Your task to perform on an android device: Go to Reddit.com Image 0: 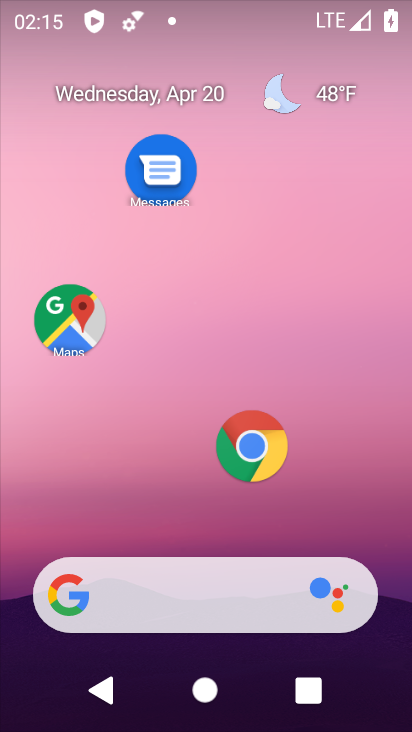
Step 0: drag from (202, 526) to (260, 24)
Your task to perform on an android device: Go to Reddit.com Image 1: 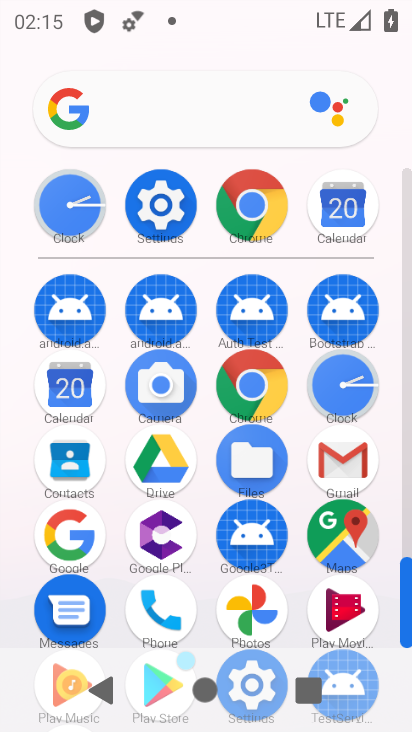
Step 1: click (246, 201)
Your task to perform on an android device: Go to Reddit.com Image 2: 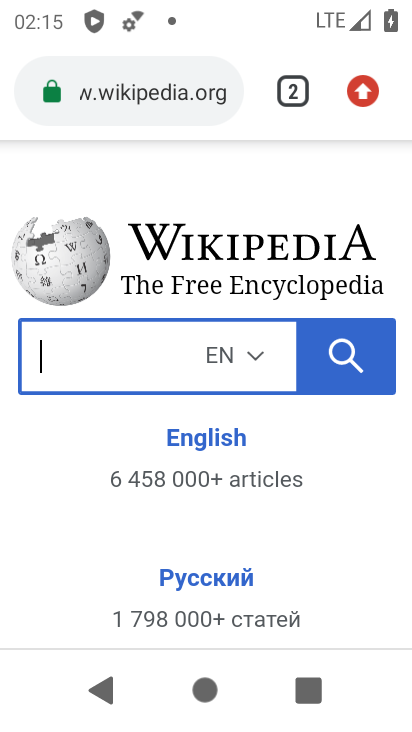
Step 2: click (289, 86)
Your task to perform on an android device: Go to Reddit.com Image 3: 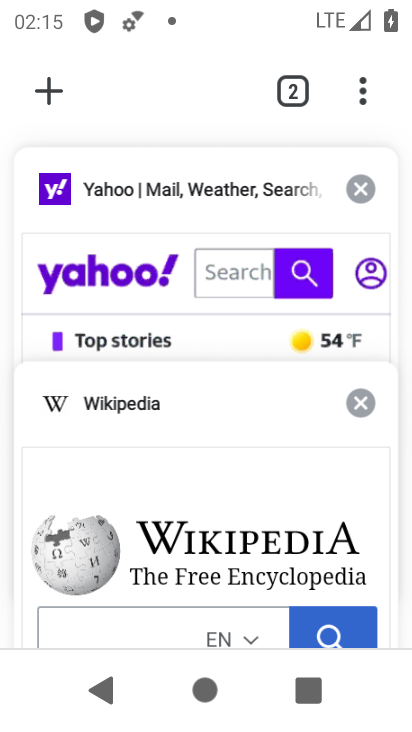
Step 3: click (354, 187)
Your task to perform on an android device: Go to Reddit.com Image 4: 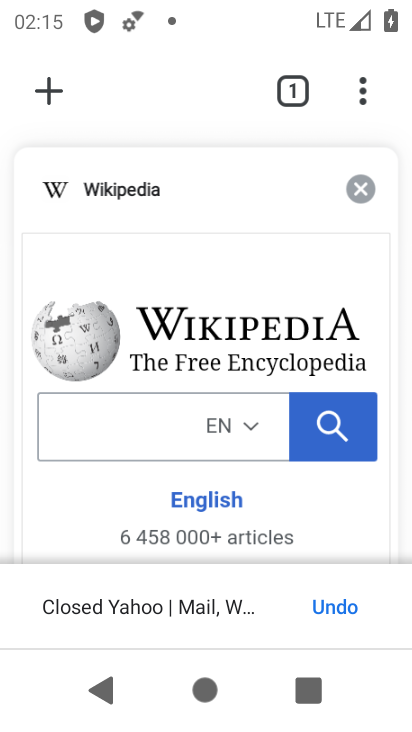
Step 4: click (356, 185)
Your task to perform on an android device: Go to Reddit.com Image 5: 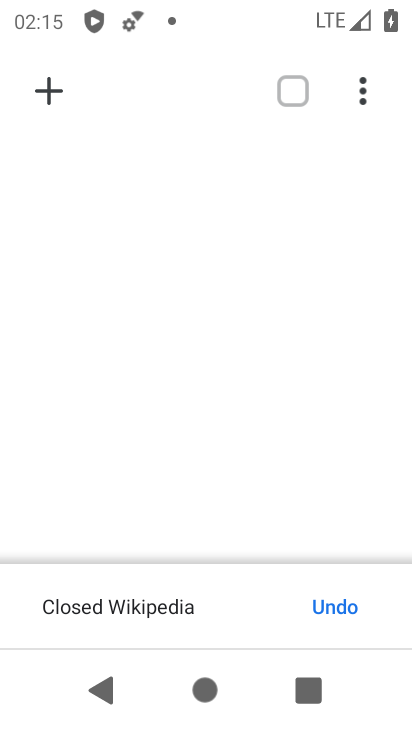
Step 5: click (58, 94)
Your task to perform on an android device: Go to Reddit.com Image 6: 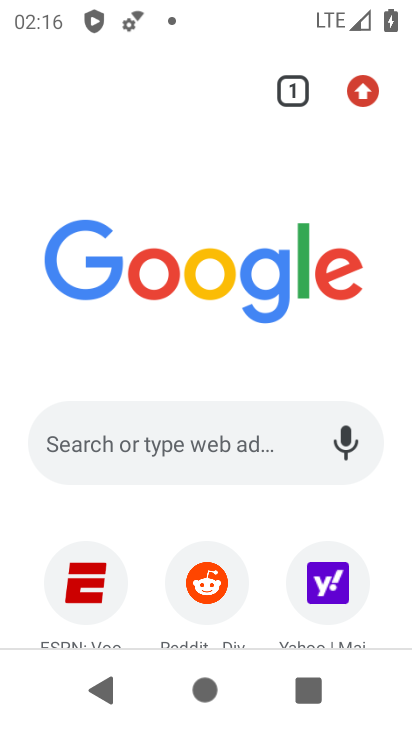
Step 6: click (205, 575)
Your task to perform on an android device: Go to Reddit.com Image 7: 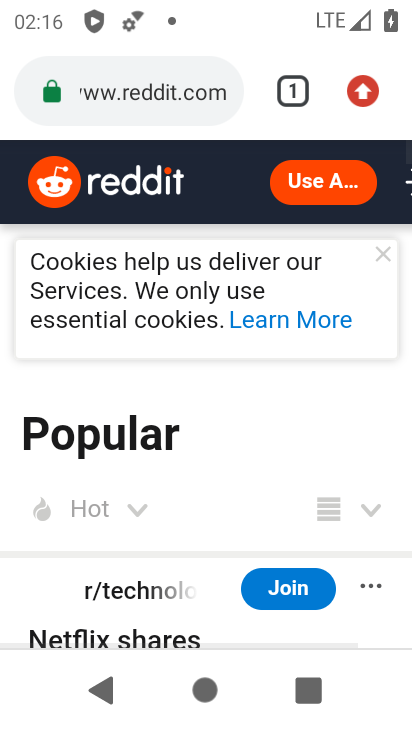
Step 7: drag from (302, 543) to (313, 349)
Your task to perform on an android device: Go to Reddit.com Image 8: 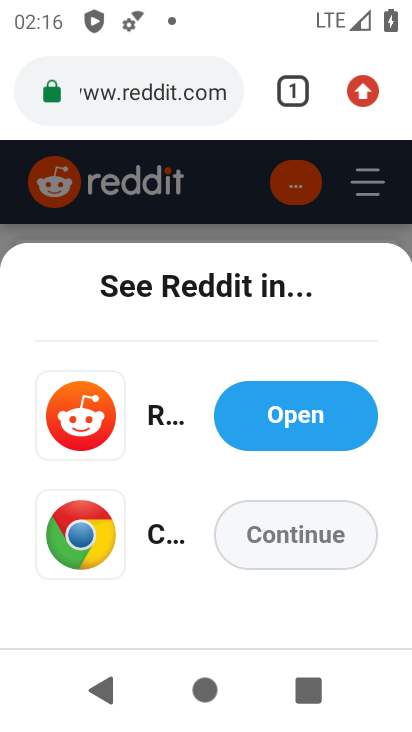
Step 8: click (284, 531)
Your task to perform on an android device: Go to Reddit.com Image 9: 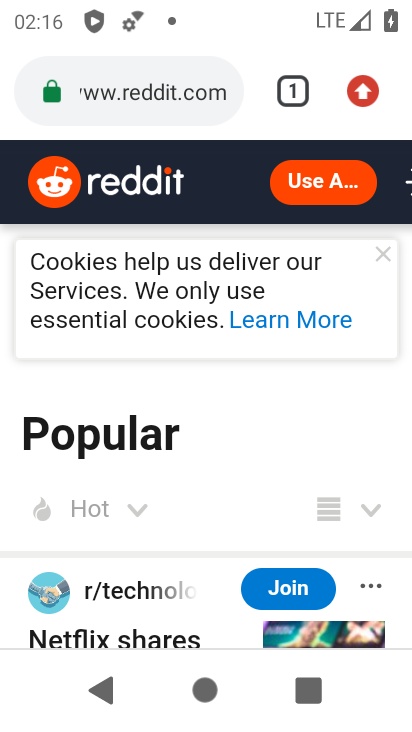
Step 9: task complete